Your task to perform on an android device: open app "Speedtest by Ookla" (install if not already installed) Image 0: 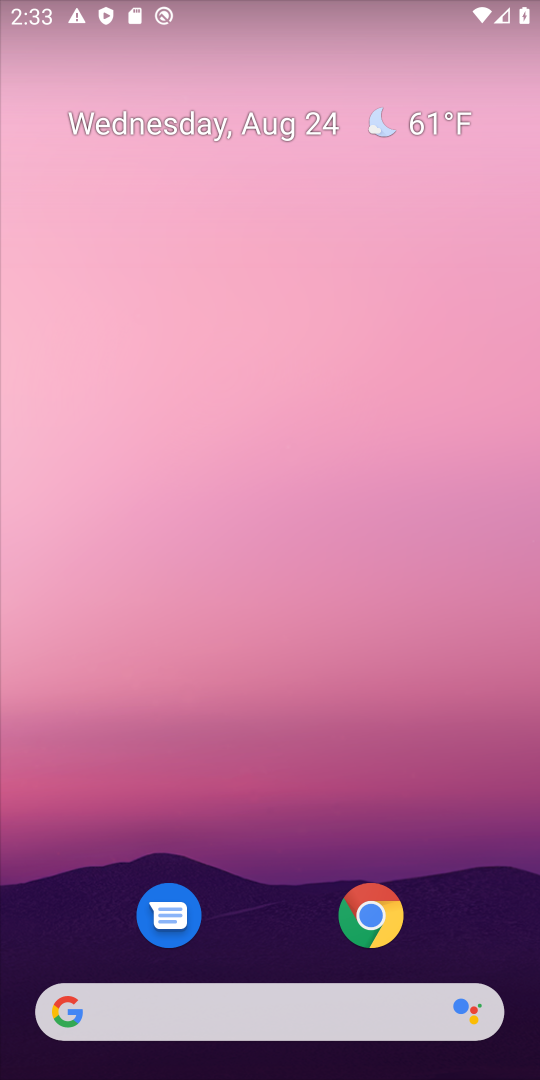
Step 0: drag from (248, 852) to (311, 61)
Your task to perform on an android device: open app "Speedtest by Ookla" (install if not already installed) Image 1: 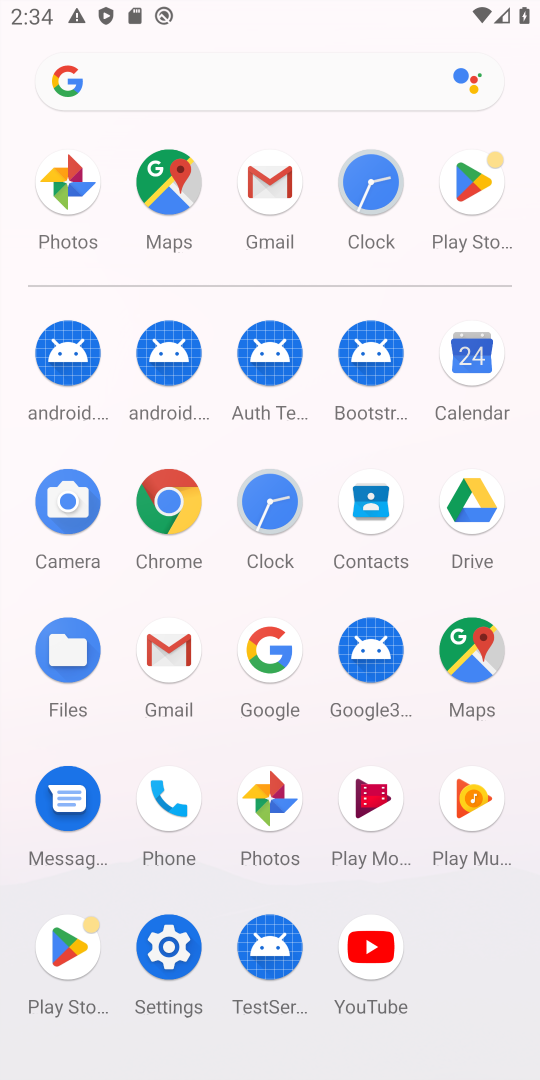
Step 1: click (473, 178)
Your task to perform on an android device: open app "Speedtest by Ookla" (install if not already installed) Image 2: 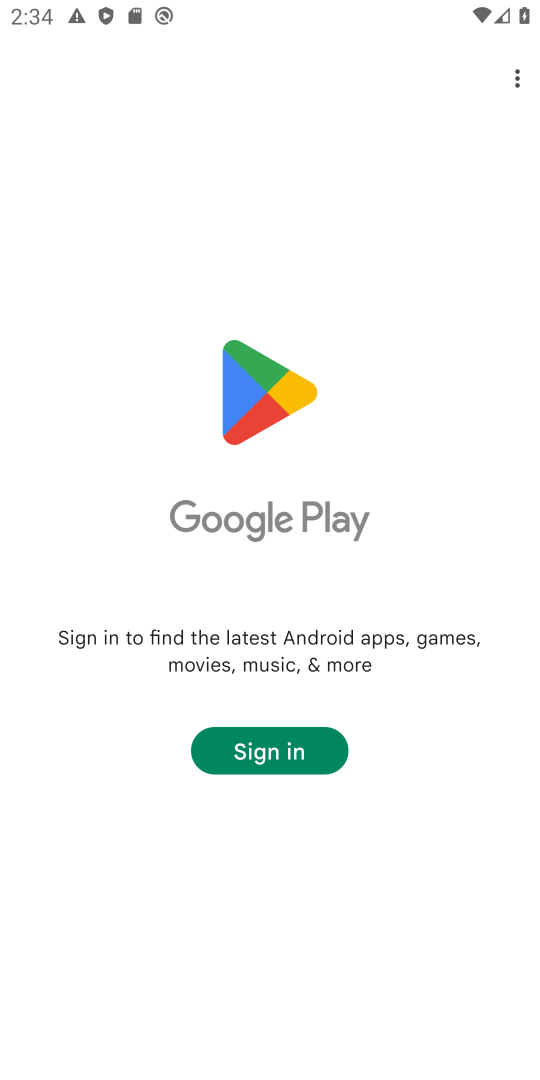
Step 2: task complete